Your task to perform on an android device: turn off notifications settings in the gmail app Image 0: 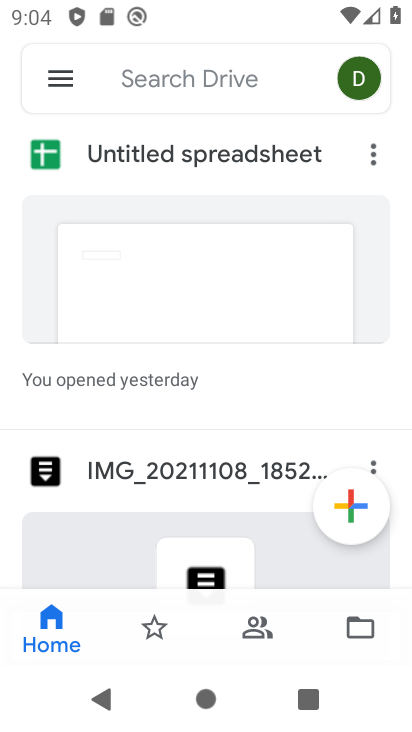
Step 0: press home button
Your task to perform on an android device: turn off notifications settings in the gmail app Image 1: 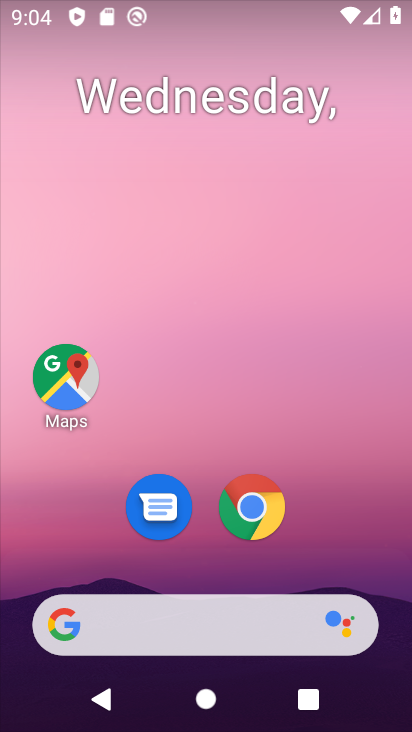
Step 1: drag from (321, 479) to (258, 109)
Your task to perform on an android device: turn off notifications settings in the gmail app Image 2: 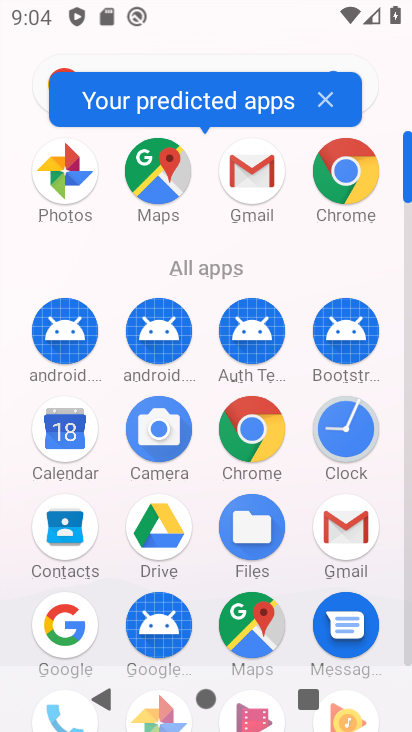
Step 2: click (259, 157)
Your task to perform on an android device: turn off notifications settings in the gmail app Image 3: 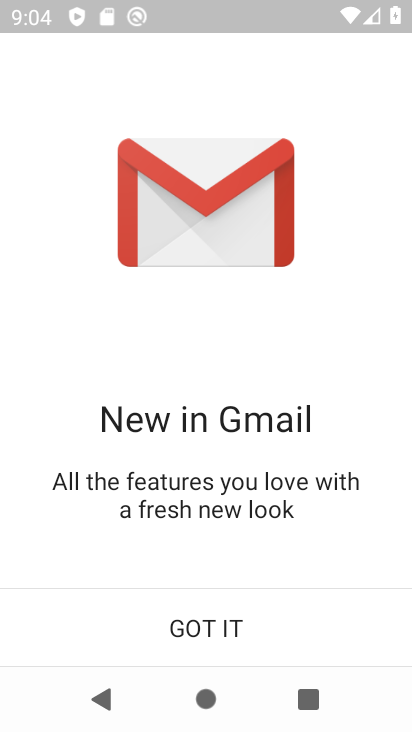
Step 3: click (204, 645)
Your task to perform on an android device: turn off notifications settings in the gmail app Image 4: 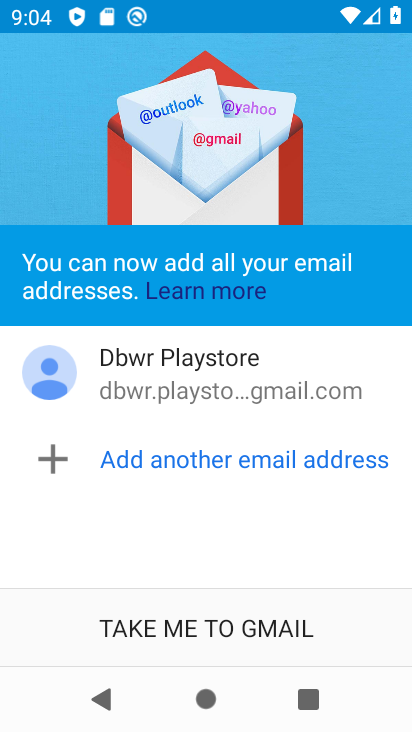
Step 4: click (204, 640)
Your task to perform on an android device: turn off notifications settings in the gmail app Image 5: 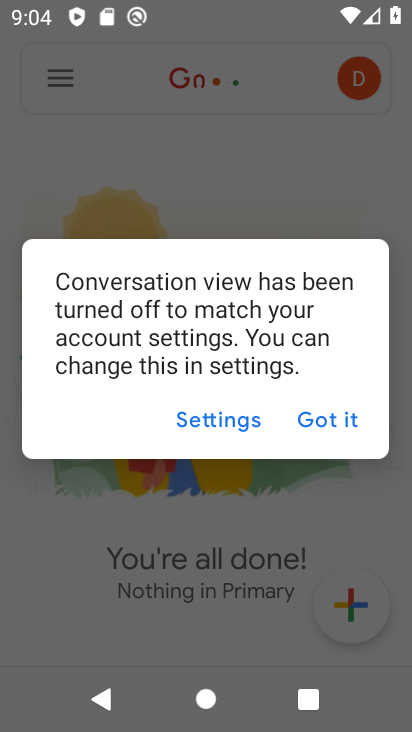
Step 5: click (314, 423)
Your task to perform on an android device: turn off notifications settings in the gmail app Image 6: 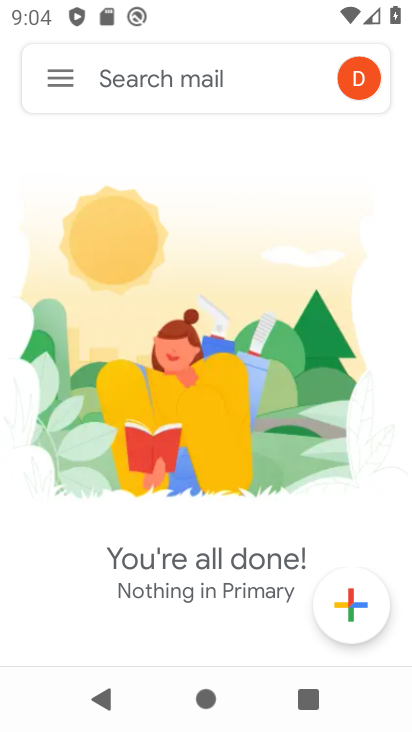
Step 6: click (56, 57)
Your task to perform on an android device: turn off notifications settings in the gmail app Image 7: 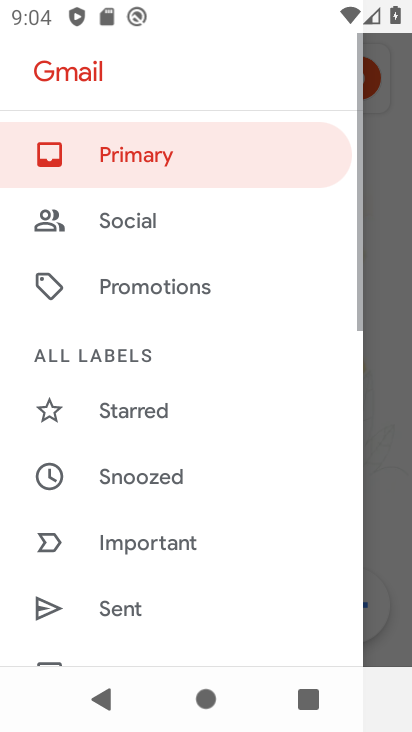
Step 7: drag from (148, 561) to (123, 58)
Your task to perform on an android device: turn off notifications settings in the gmail app Image 8: 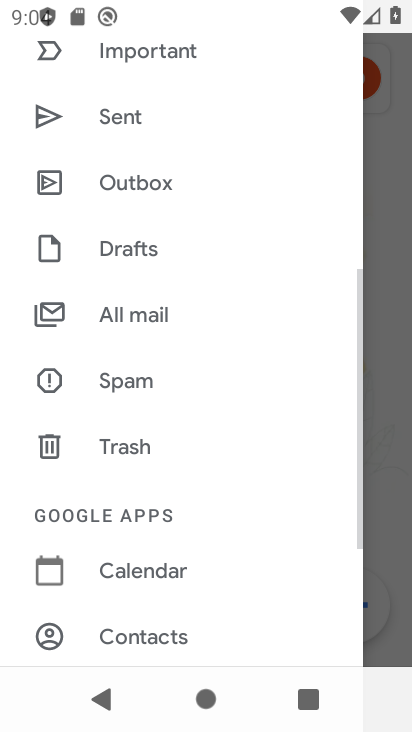
Step 8: drag from (139, 505) to (194, 148)
Your task to perform on an android device: turn off notifications settings in the gmail app Image 9: 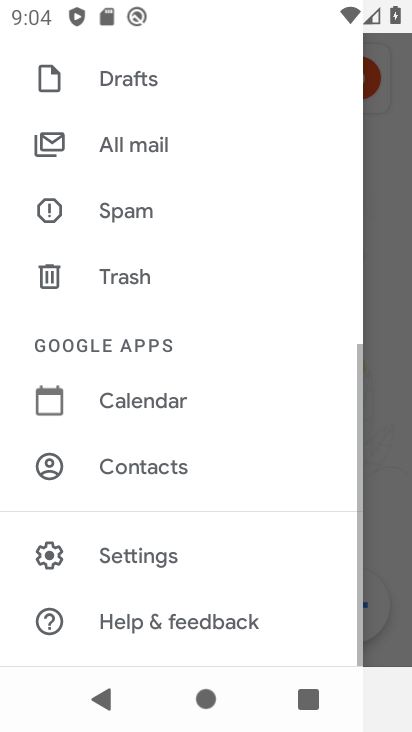
Step 9: click (116, 545)
Your task to perform on an android device: turn off notifications settings in the gmail app Image 10: 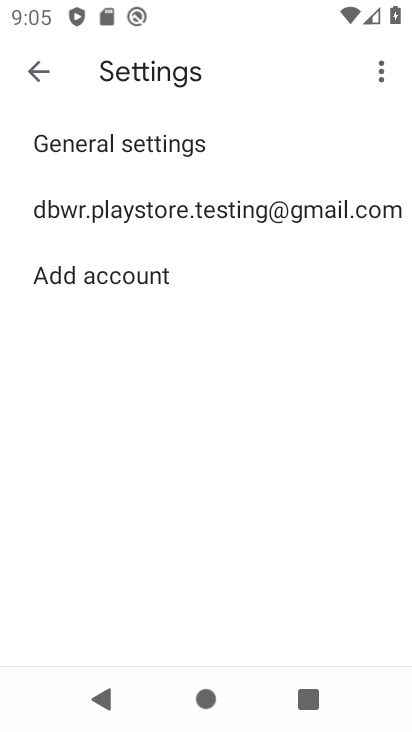
Step 10: click (291, 207)
Your task to perform on an android device: turn off notifications settings in the gmail app Image 11: 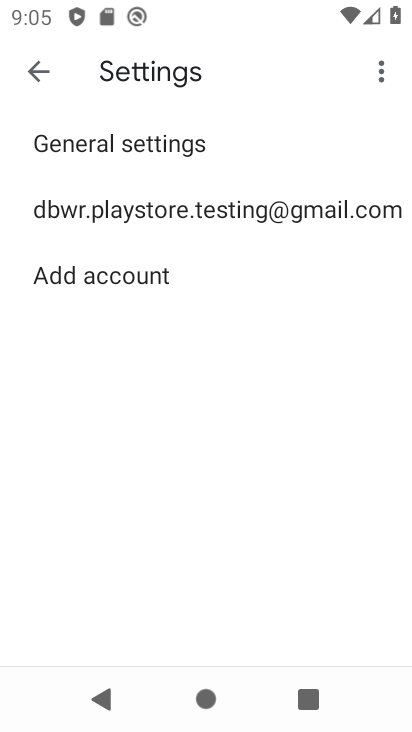
Step 11: click (291, 207)
Your task to perform on an android device: turn off notifications settings in the gmail app Image 12: 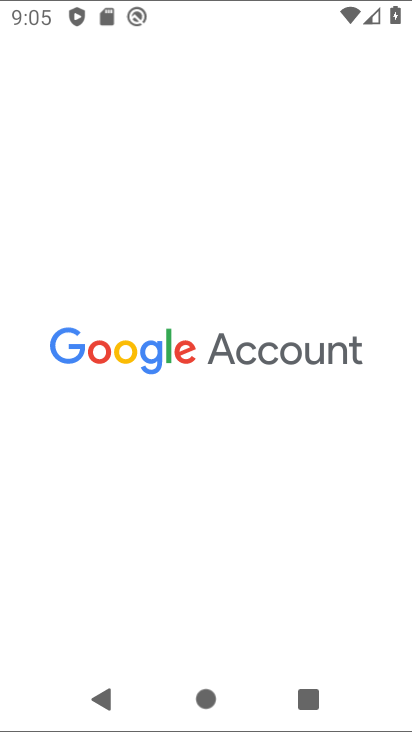
Step 12: drag from (189, 546) to (180, 225)
Your task to perform on an android device: turn off notifications settings in the gmail app Image 13: 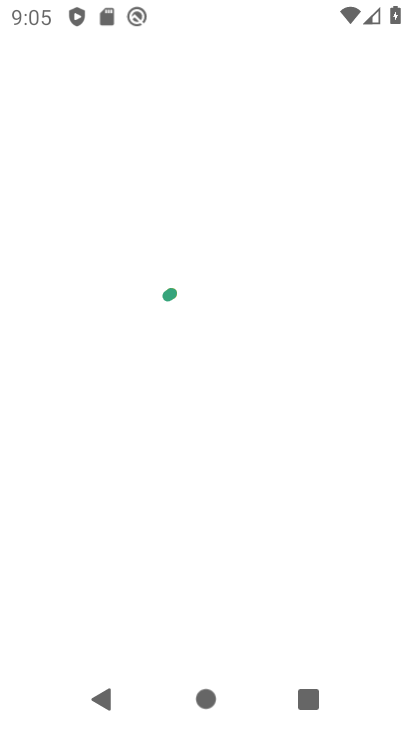
Step 13: press back button
Your task to perform on an android device: turn off notifications settings in the gmail app Image 14: 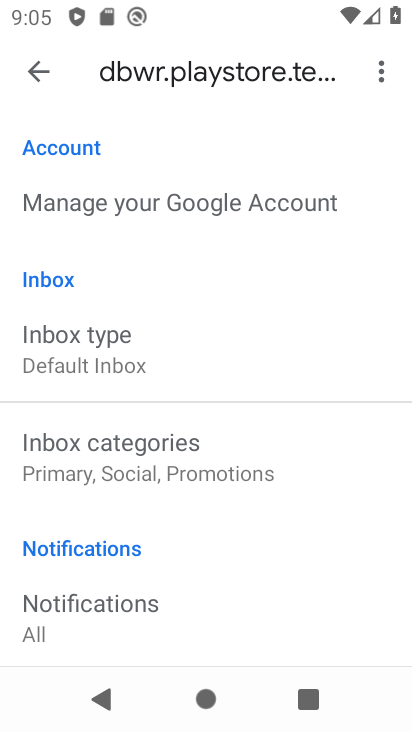
Step 14: drag from (99, 583) to (133, 208)
Your task to perform on an android device: turn off notifications settings in the gmail app Image 15: 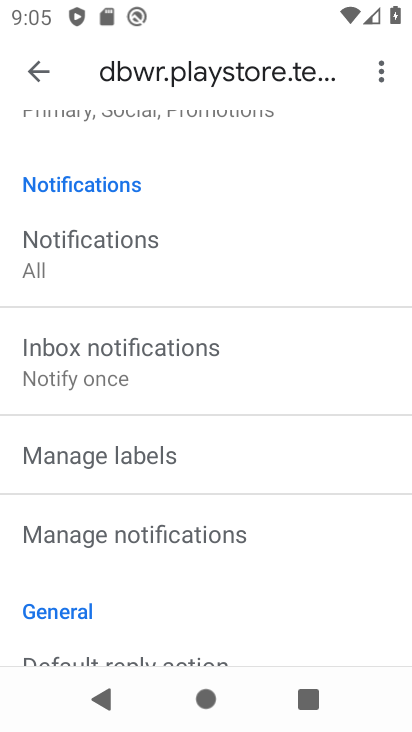
Step 15: click (105, 548)
Your task to perform on an android device: turn off notifications settings in the gmail app Image 16: 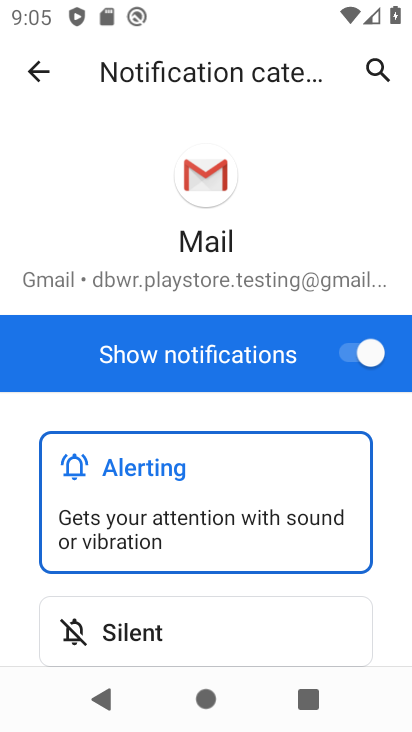
Step 16: click (344, 349)
Your task to perform on an android device: turn off notifications settings in the gmail app Image 17: 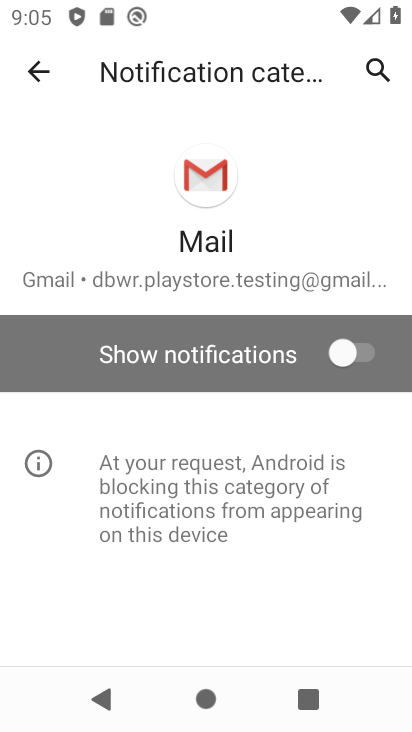
Step 17: task complete